Your task to perform on an android device: toggle priority inbox in the gmail app Image 0: 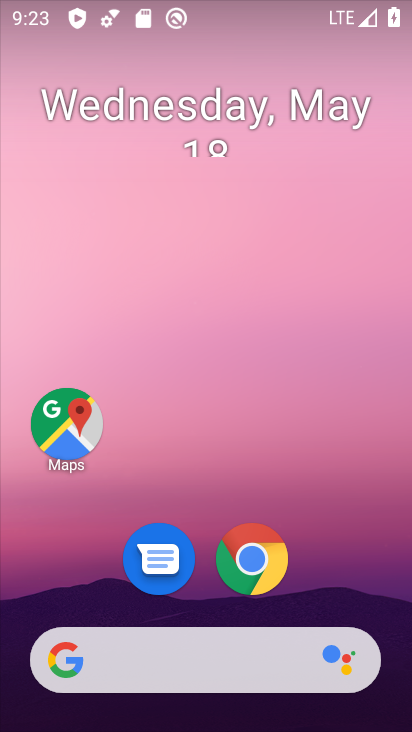
Step 0: drag from (298, 463) to (225, 37)
Your task to perform on an android device: toggle priority inbox in the gmail app Image 1: 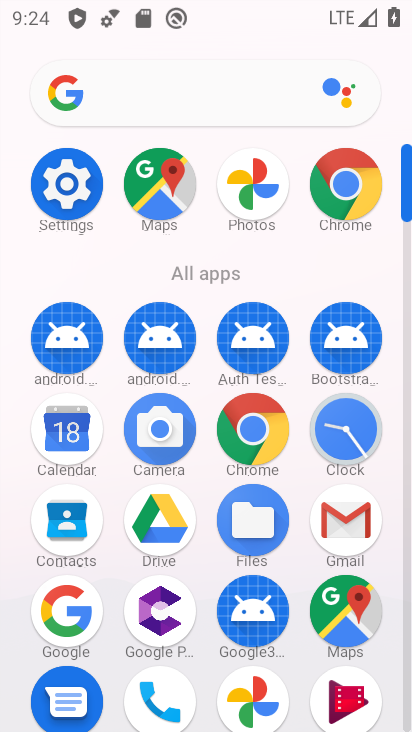
Step 1: drag from (20, 604) to (20, 309)
Your task to perform on an android device: toggle priority inbox in the gmail app Image 2: 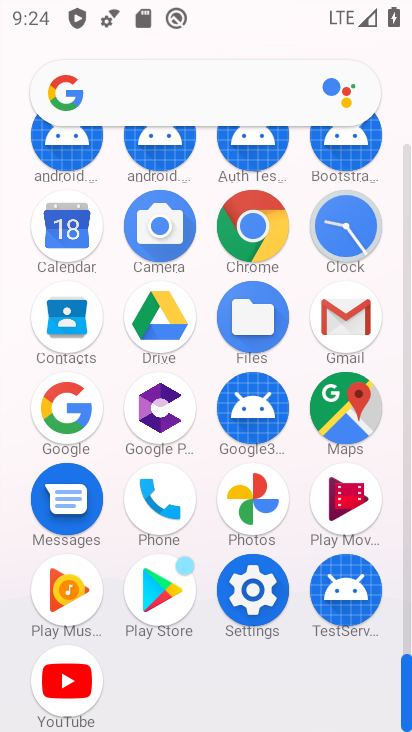
Step 2: click (345, 313)
Your task to perform on an android device: toggle priority inbox in the gmail app Image 3: 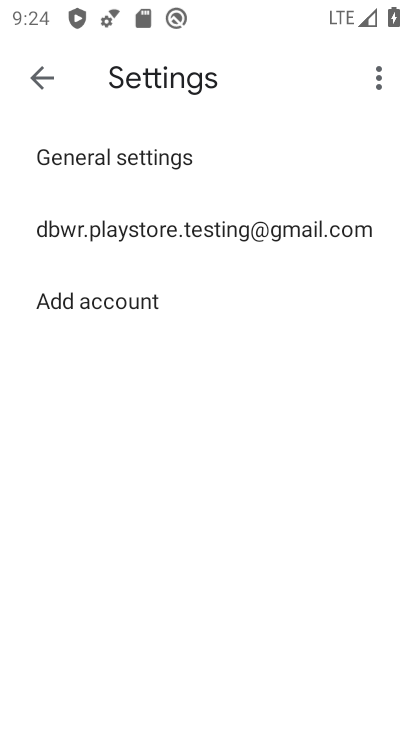
Step 3: click (232, 227)
Your task to perform on an android device: toggle priority inbox in the gmail app Image 4: 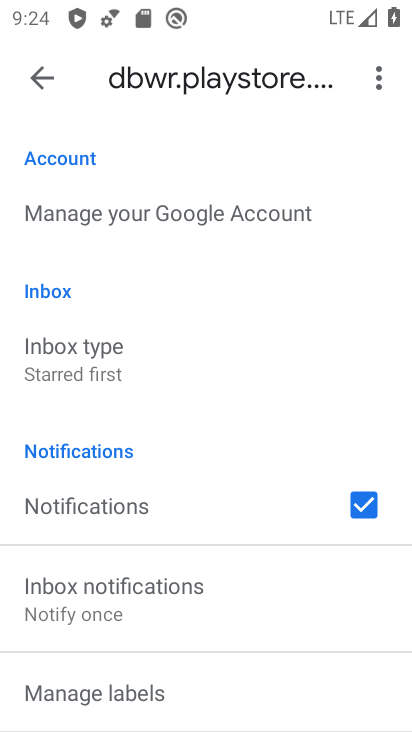
Step 4: click (138, 363)
Your task to perform on an android device: toggle priority inbox in the gmail app Image 5: 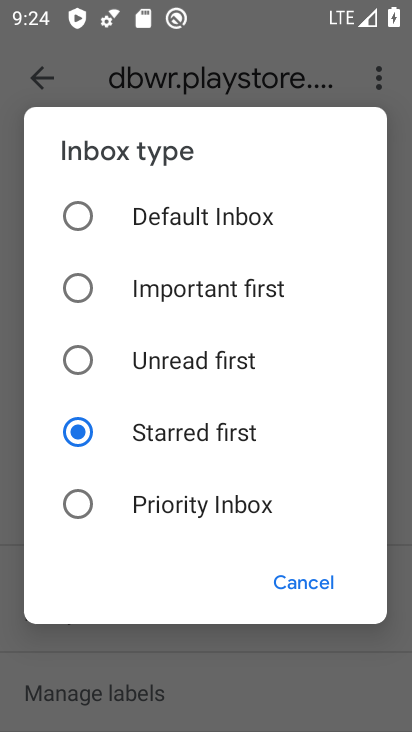
Step 5: click (175, 506)
Your task to perform on an android device: toggle priority inbox in the gmail app Image 6: 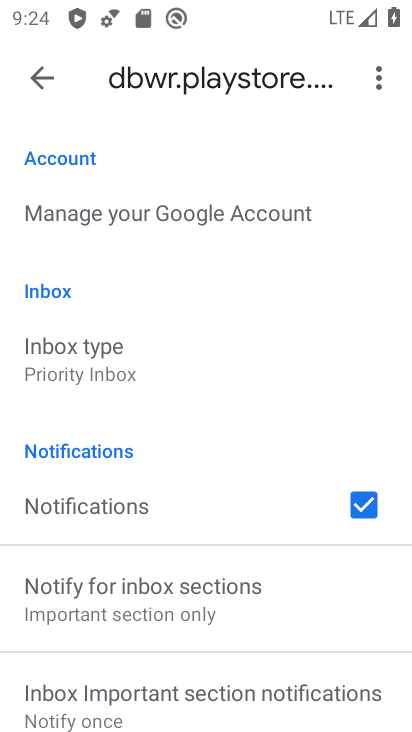
Step 6: task complete